Your task to perform on an android device: Is it going to rain today? Image 0: 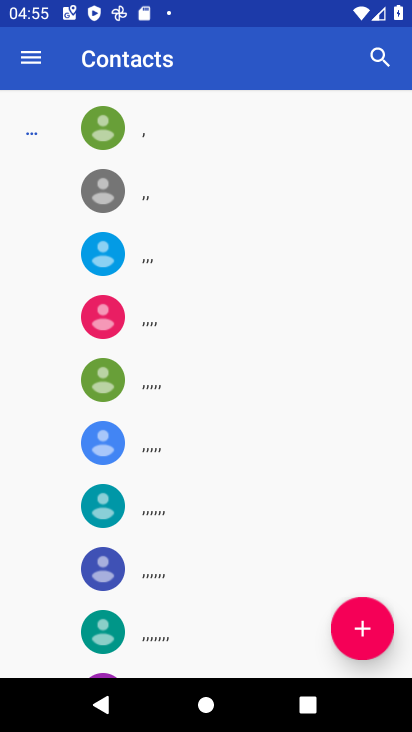
Step 0: press home button
Your task to perform on an android device: Is it going to rain today? Image 1: 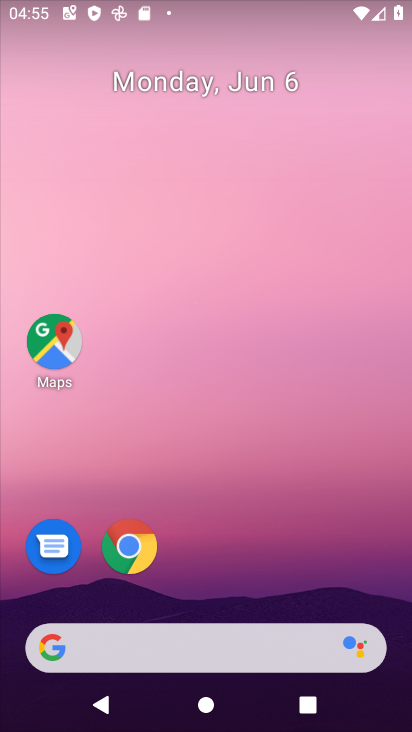
Step 1: click (217, 635)
Your task to perform on an android device: Is it going to rain today? Image 2: 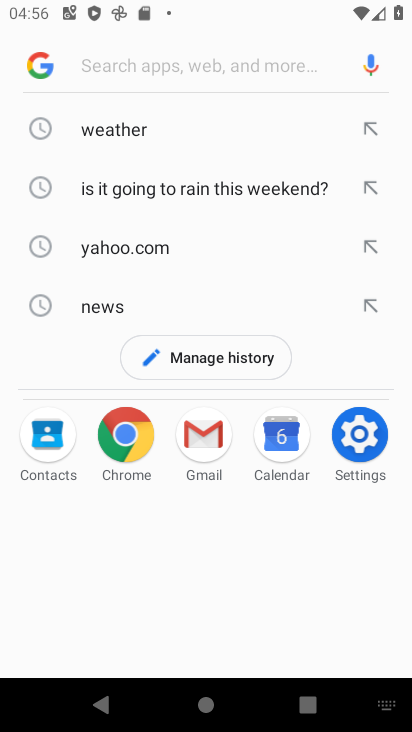
Step 2: click (174, 112)
Your task to perform on an android device: Is it going to rain today? Image 3: 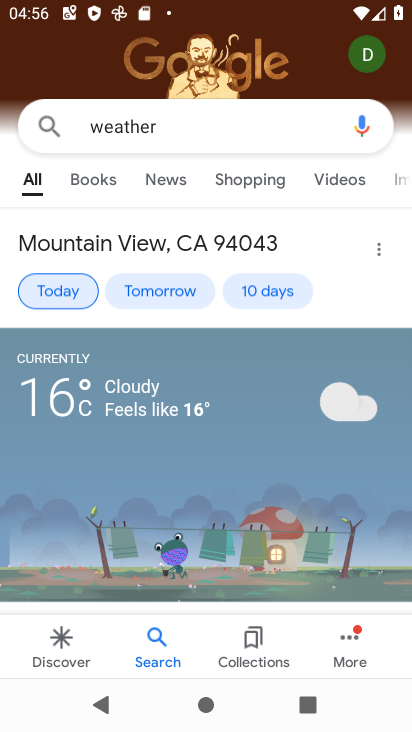
Step 3: task complete